Your task to perform on an android device: toggle show notifications on the lock screen Image 0: 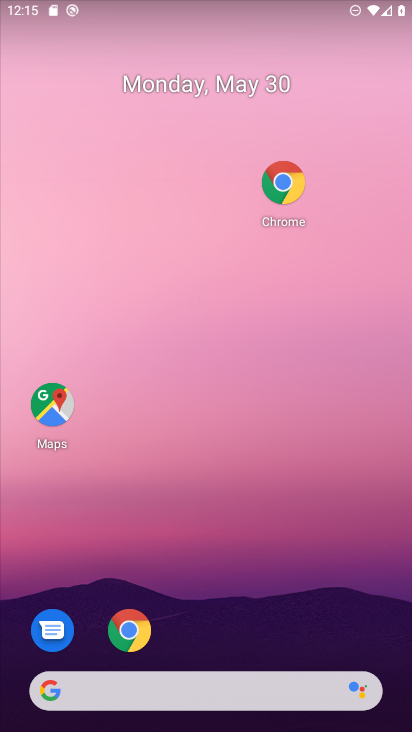
Step 0: drag from (281, 653) to (276, 214)
Your task to perform on an android device: toggle show notifications on the lock screen Image 1: 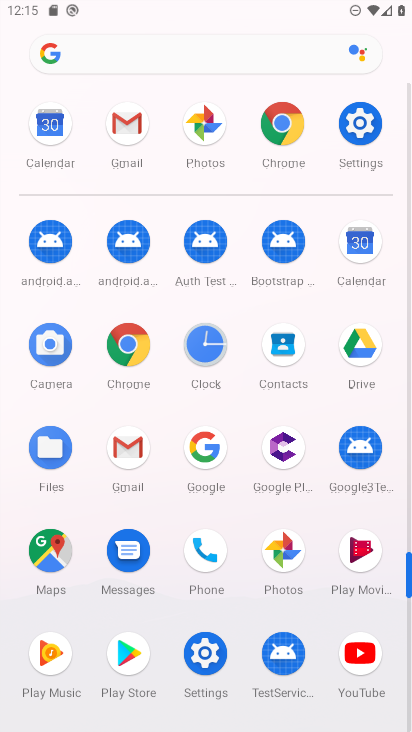
Step 1: click (361, 120)
Your task to perform on an android device: toggle show notifications on the lock screen Image 2: 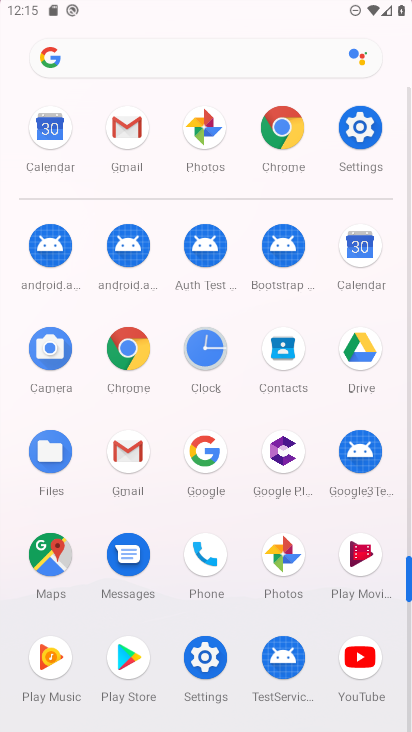
Step 2: click (362, 131)
Your task to perform on an android device: toggle show notifications on the lock screen Image 3: 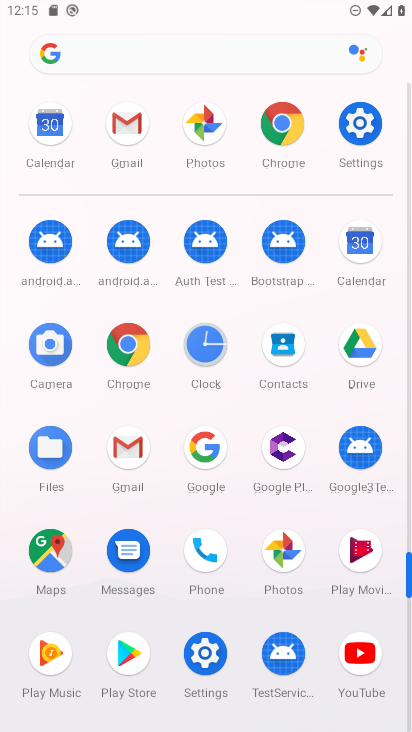
Step 3: click (374, 130)
Your task to perform on an android device: toggle show notifications on the lock screen Image 4: 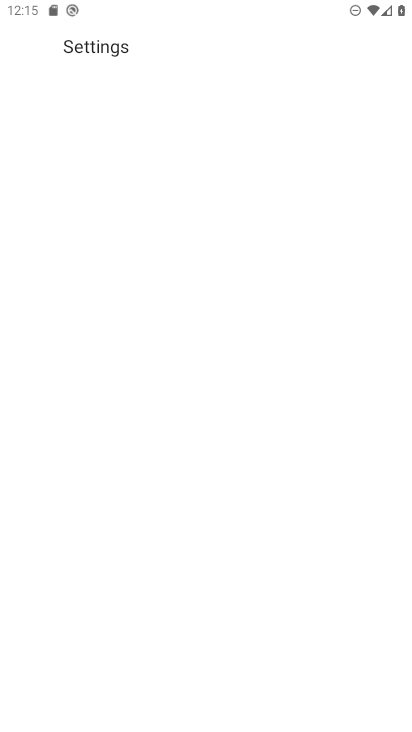
Step 4: click (375, 129)
Your task to perform on an android device: toggle show notifications on the lock screen Image 5: 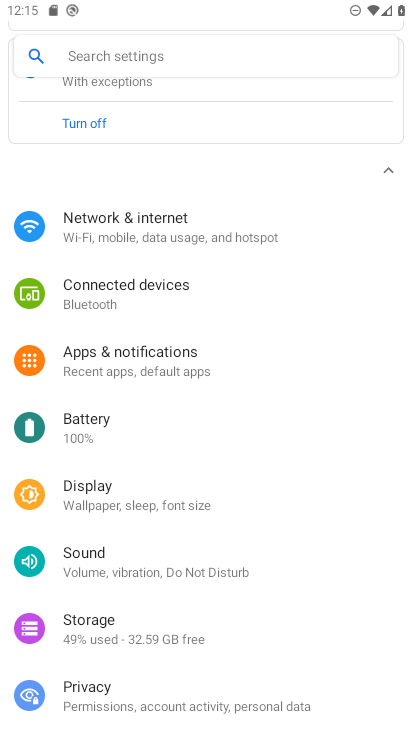
Step 5: click (142, 353)
Your task to perform on an android device: toggle show notifications on the lock screen Image 6: 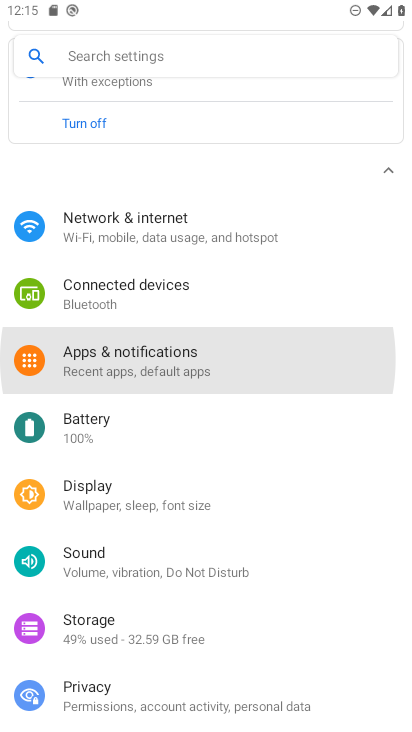
Step 6: click (140, 357)
Your task to perform on an android device: toggle show notifications on the lock screen Image 7: 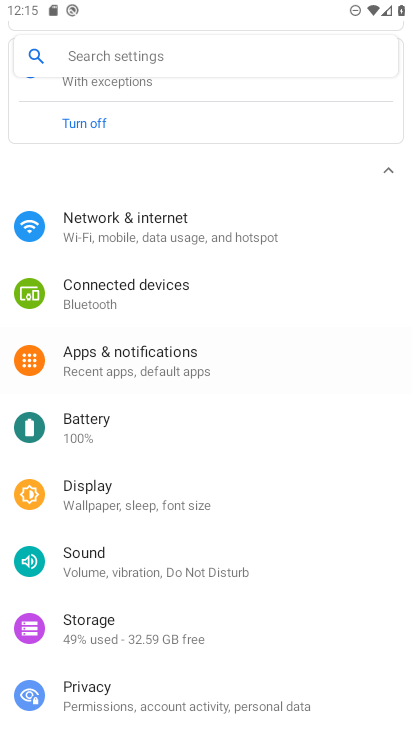
Step 7: click (146, 363)
Your task to perform on an android device: toggle show notifications on the lock screen Image 8: 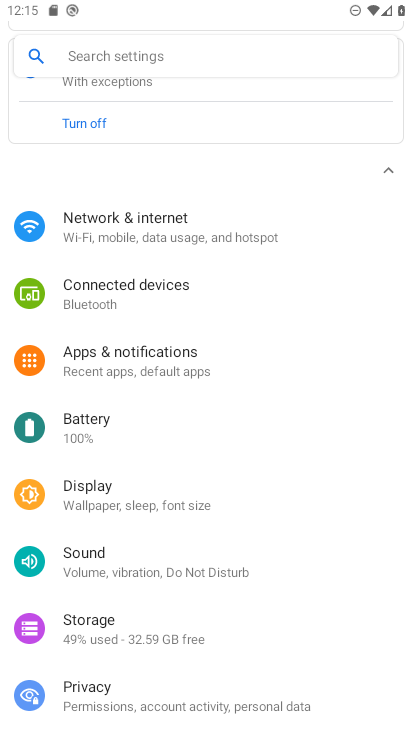
Step 8: click (158, 351)
Your task to perform on an android device: toggle show notifications on the lock screen Image 9: 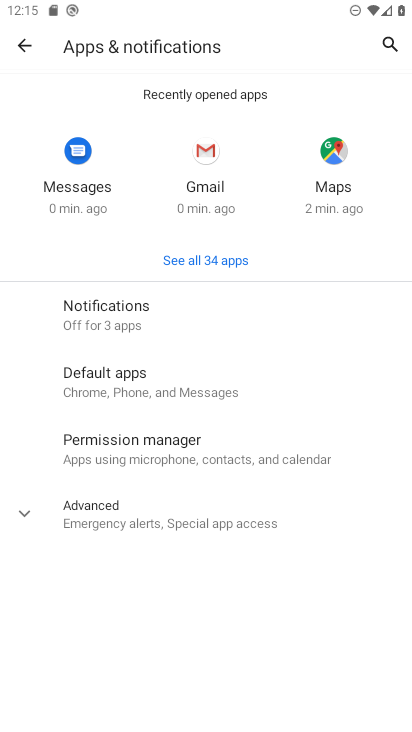
Step 9: click (124, 308)
Your task to perform on an android device: toggle show notifications on the lock screen Image 10: 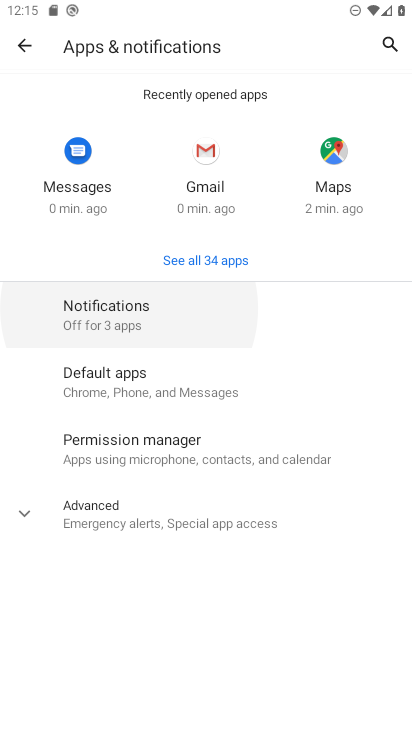
Step 10: click (124, 308)
Your task to perform on an android device: toggle show notifications on the lock screen Image 11: 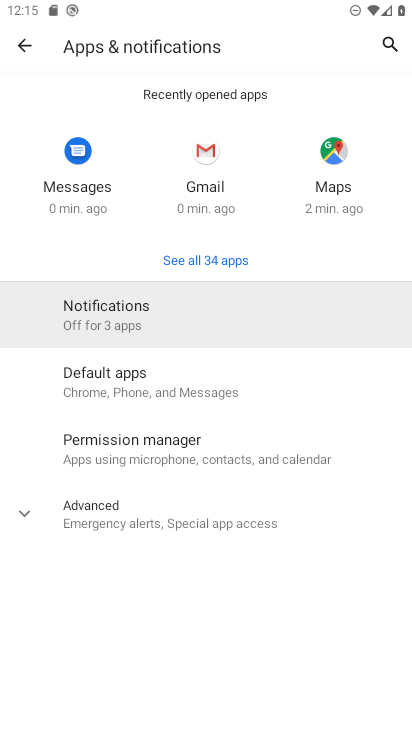
Step 11: click (125, 308)
Your task to perform on an android device: toggle show notifications on the lock screen Image 12: 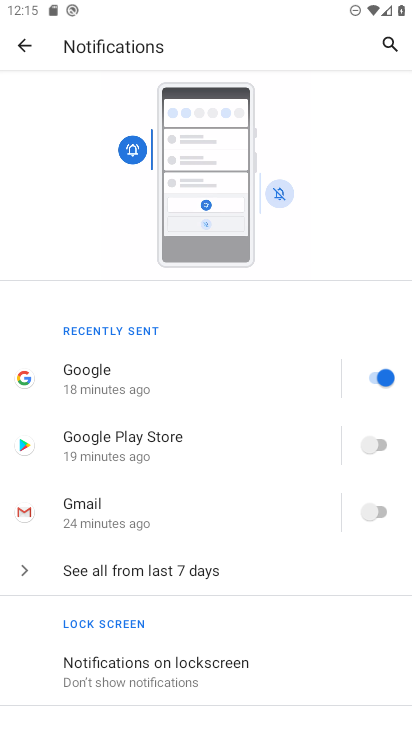
Step 12: click (109, 660)
Your task to perform on an android device: toggle show notifications on the lock screen Image 13: 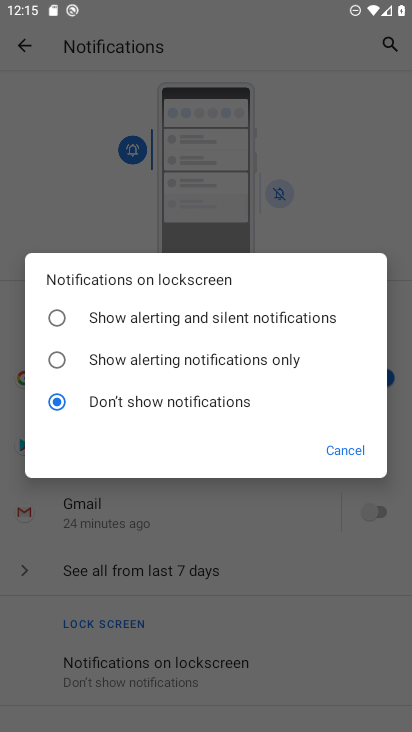
Step 13: click (349, 442)
Your task to perform on an android device: toggle show notifications on the lock screen Image 14: 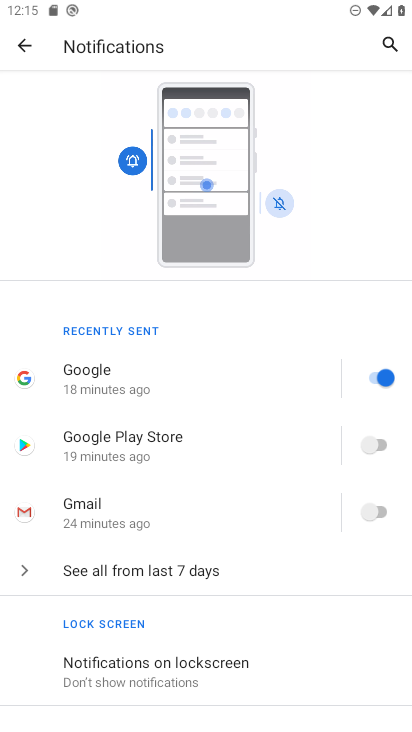
Step 14: click (114, 664)
Your task to perform on an android device: toggle show notifications on the lock screen Image 15: 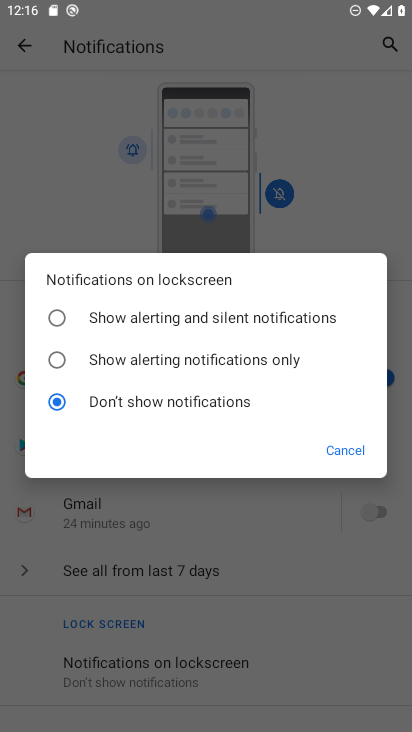
Step 15: click (345, 459)
Your task to perform on an android device: toggle show notifications on the lock screen Image 16: 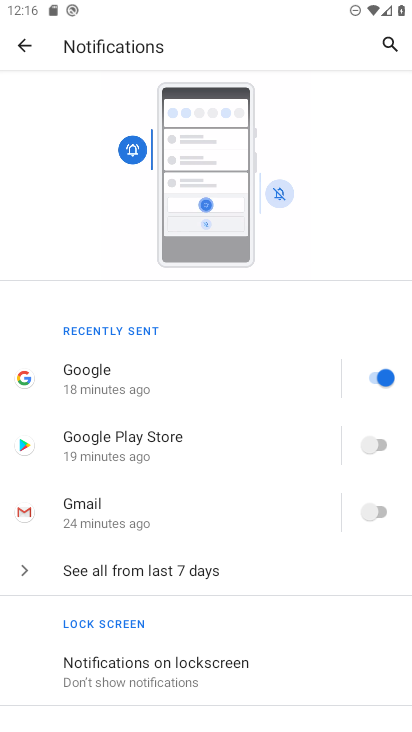
Step 16: click (135, 672)
Your task to perform on an android device: toggle show notifications on the lock screen Image 17: 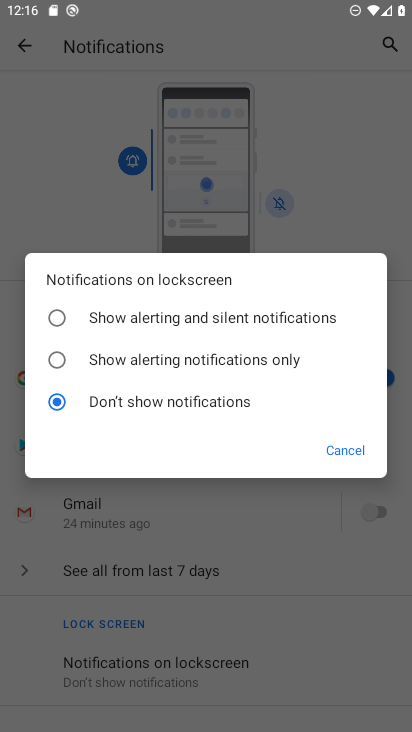
Step 17: click (50, 317)
Your task to perform on an android device: toggle show notifications on the lock screen Image 18: 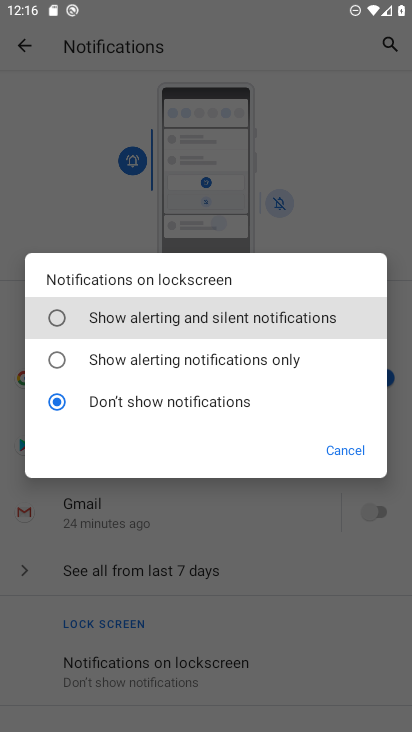
Step 18: click (187, 647)
Your task to perform on an android device: toggle show notifications on the lock screen Image 19: 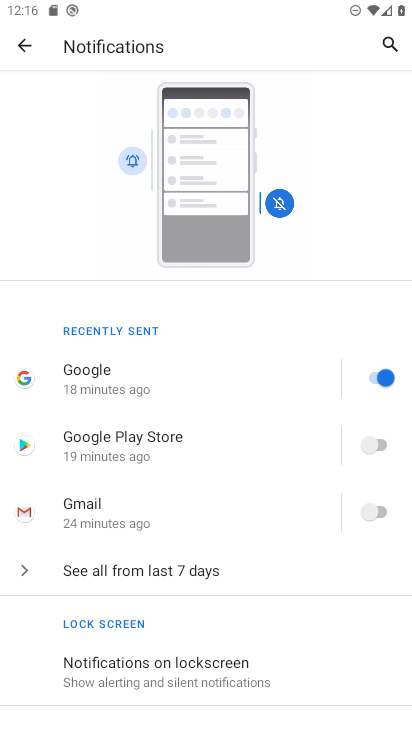
Step 19: click (200, 669)
Your task to perform on an android device: toggle show notifications on the lock screen Image 20: 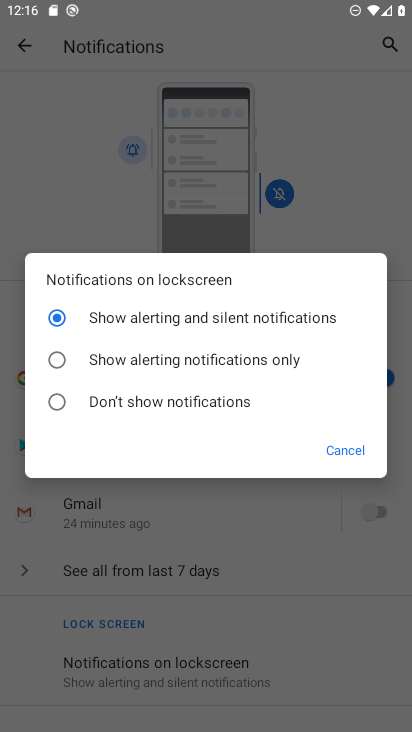
Step 20: click (371, 450)
Your task to perform on an android device: toggle show notifications on the lock screen Image 21: 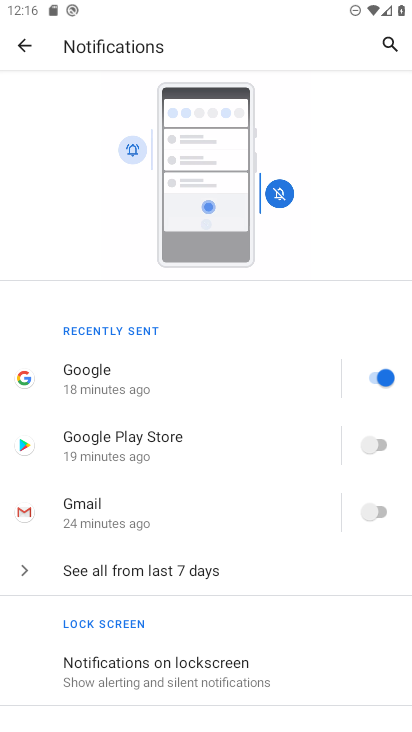
Step 21: task complete